Your task to perform on an android device: Set the phone to "Do not disturb". Image 0: 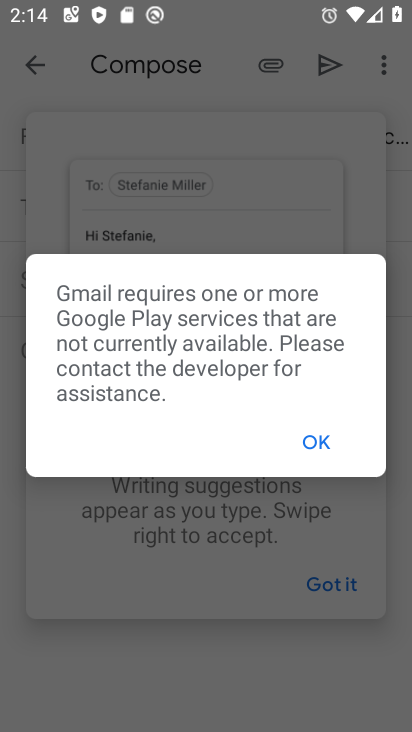
Step 0: press home button
Your task to perform on an android device: Set the phone to "Do not disturb". Image 1: 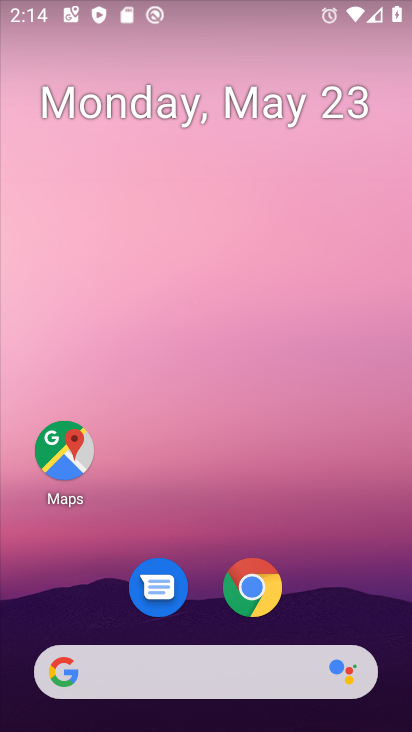
Step 1: drag from (328, 598) to (234, 8)
Your task to perform on an android device: Set the phone to "Do not disturb". Image 2: 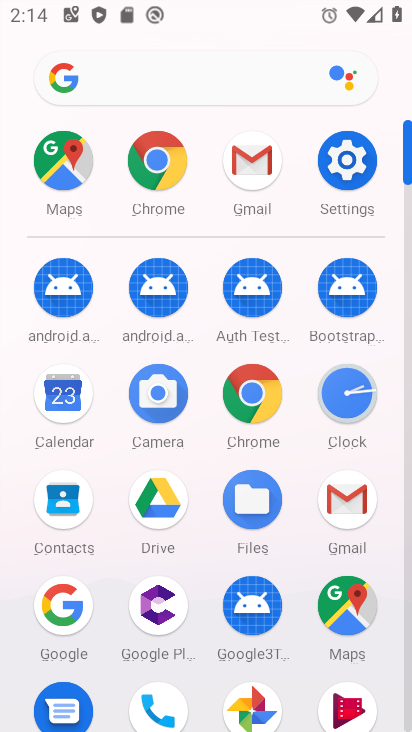
Step 2: click (344, 147)
Your task to perform on an android device: Set the phone to "Do not disturb". Image 3: 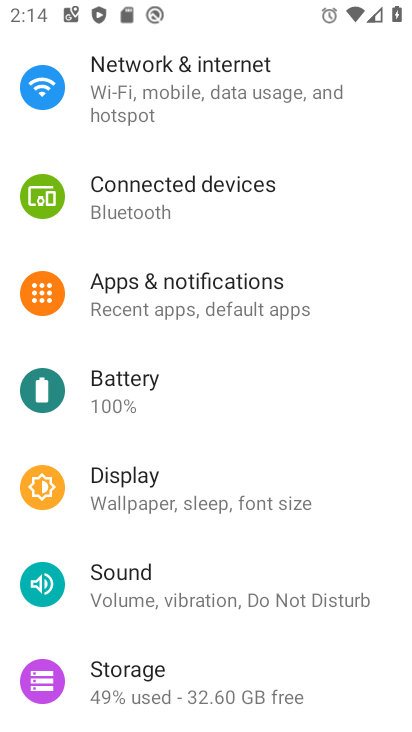
Step 3: click (215, 565)
Your task to perform on an android device: Set the phone to "Do not disturb". Image 4: 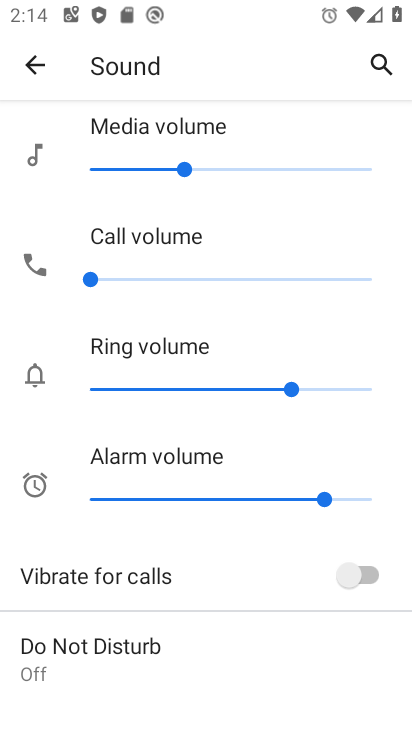
Step 4: click (216, 686)
Your task to perform on an android device: Set the phone to "Do not disturb". Image 5: 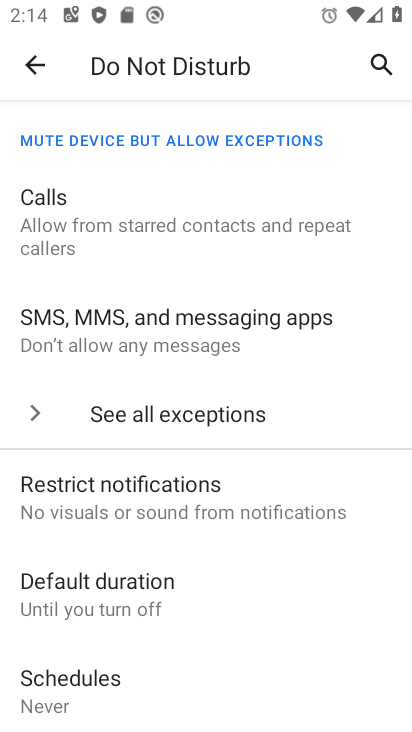
Step 5: drag from (275, 522) to (268, 299)
Your task to perform on an android device: Set the phone to "Do not disturb". Image 6: 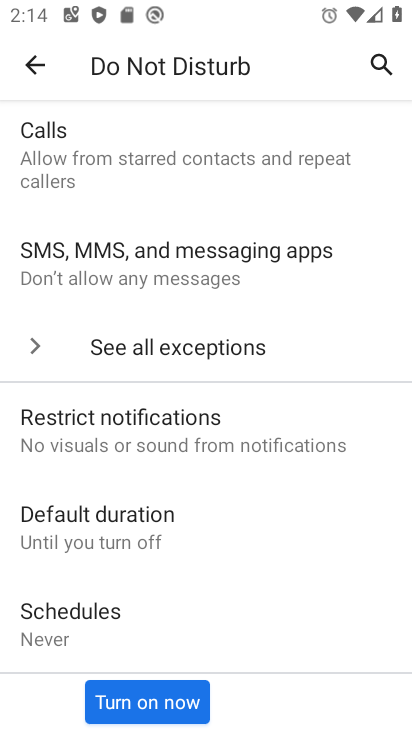
Step 6: click (129, 708)
Your task to perform on an android device: Set the phone to "Do not disturb". Image 7: 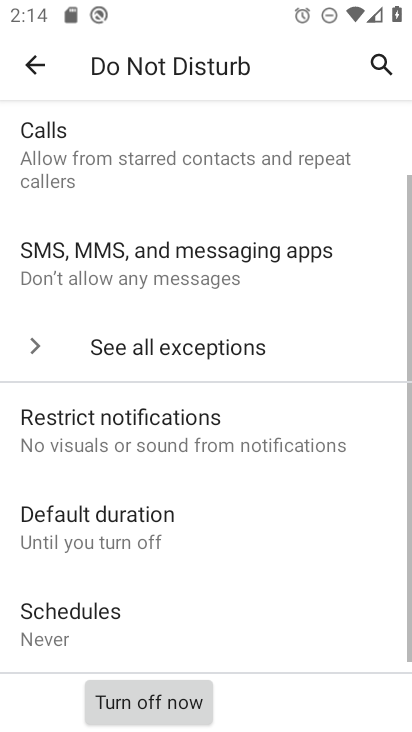
Step 7: task complete